Your task to perform on an android device: turn off smart reply in the gmail app Image 0: 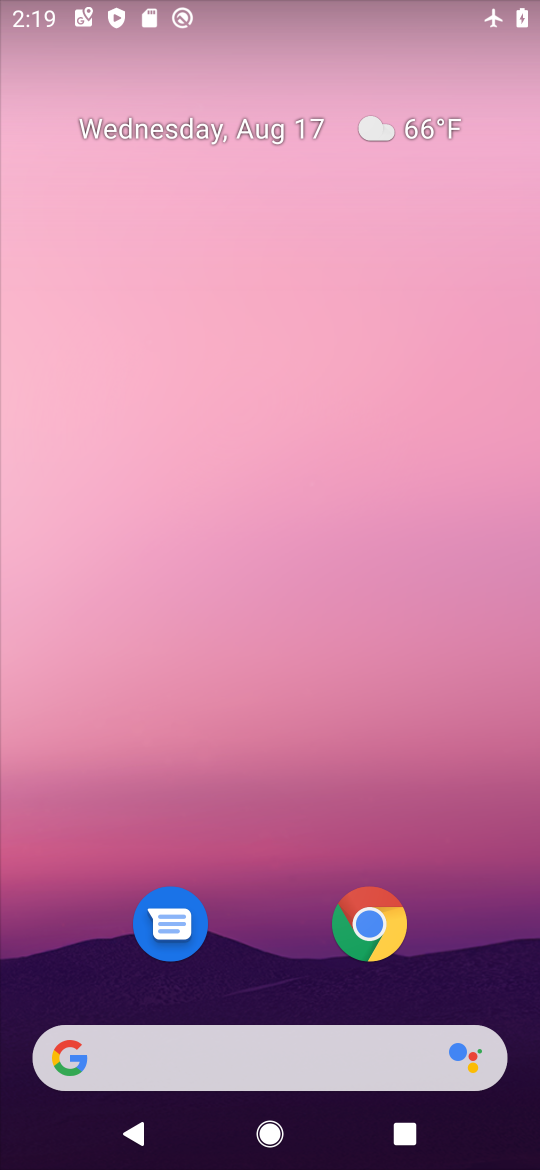
Step 0: drag from (200, 707) to (163, 188)
Your task to perform on an android device: turn off smart reply in the gmail app Image 1: 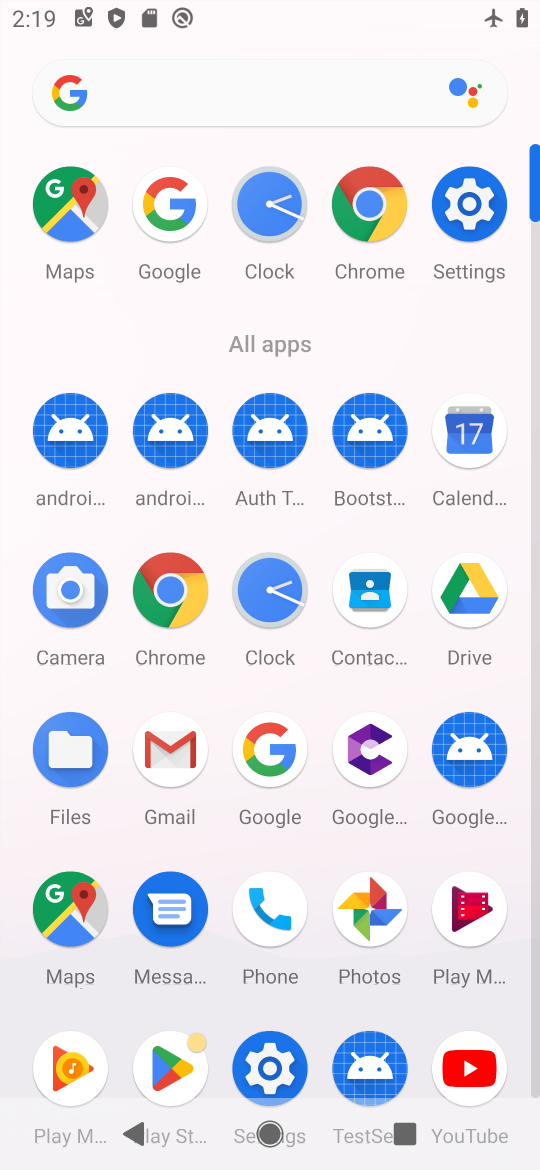
Step 1: click (171, 748)
Your task to perform on an android device: turn off smart reply in the gmail app Image 2: 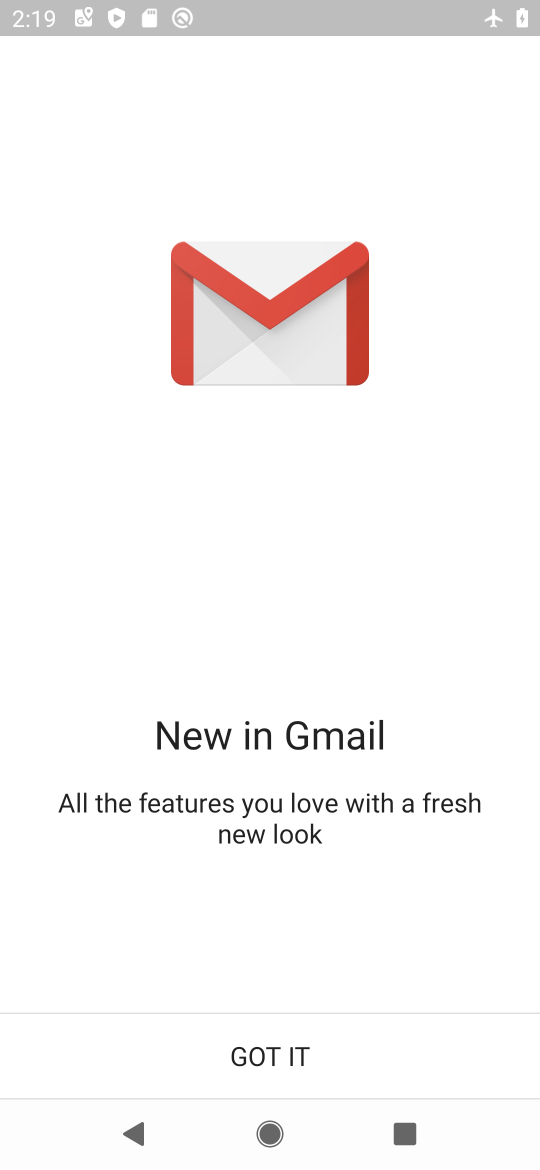
Step 2: click (265, 1052)
Your task to perform on an android device: turn off smart reply in the gmail app Image 3: 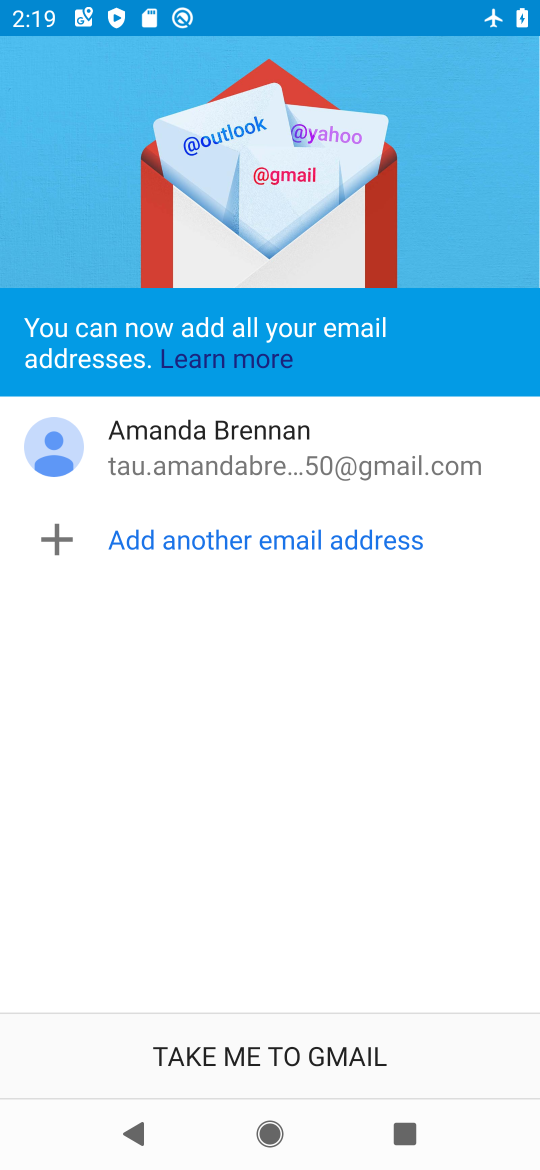
Step 3: click (268, 1059)
Your task to perform on an android device: turn off smart reply in the gmail app Image 4: 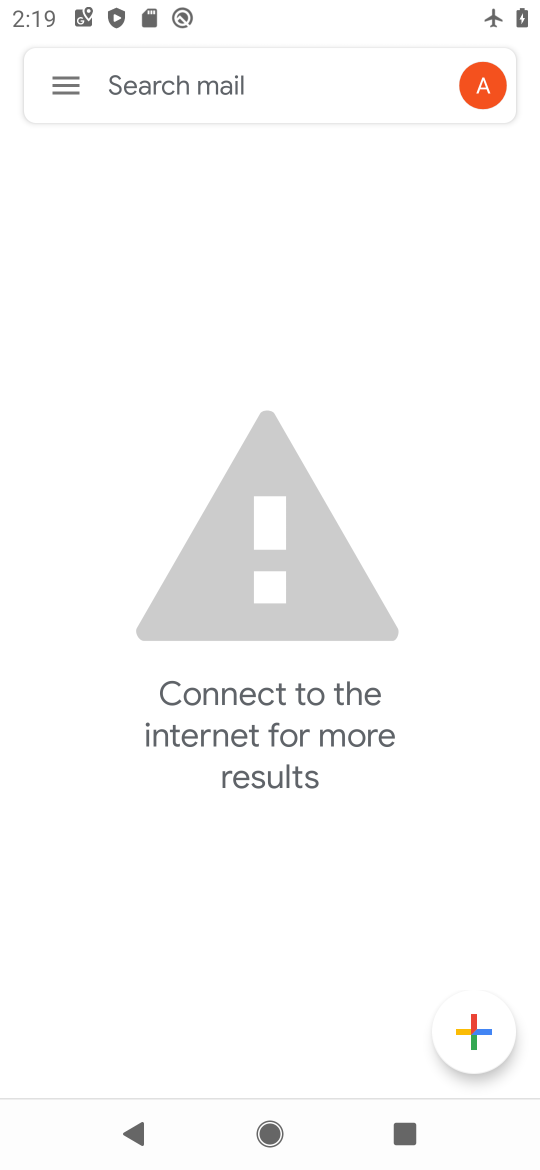
Step 4: click (66, 93)
Your task to perform on an android device: turn off smart reply in the gmail app Image 5: 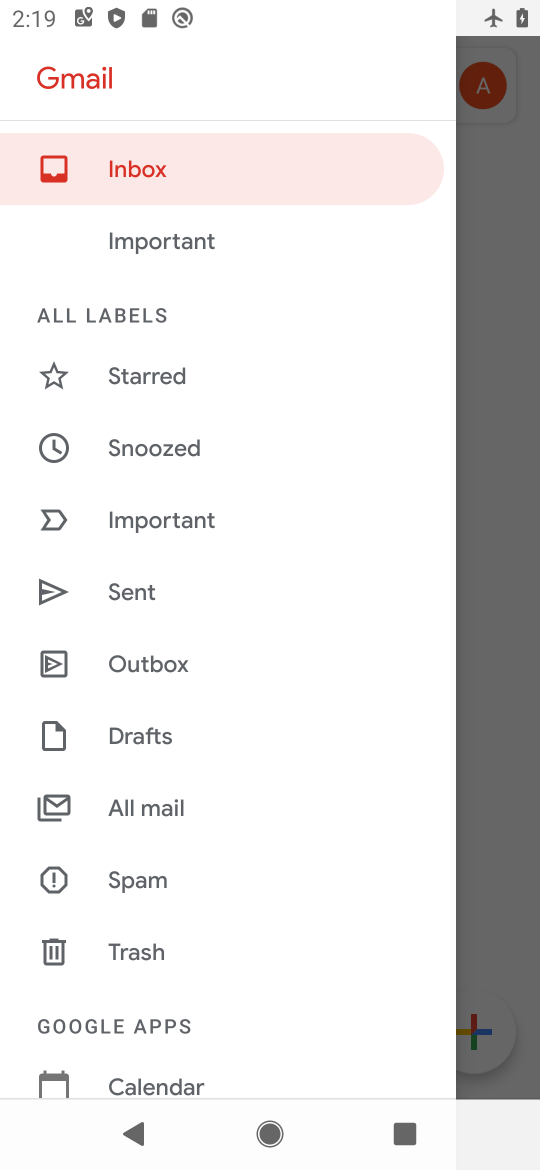
Step 5: drag from (226, 960) to (269, 797)
Your task to perform on an android device: turn off smart reply in the gmail app Image 6: 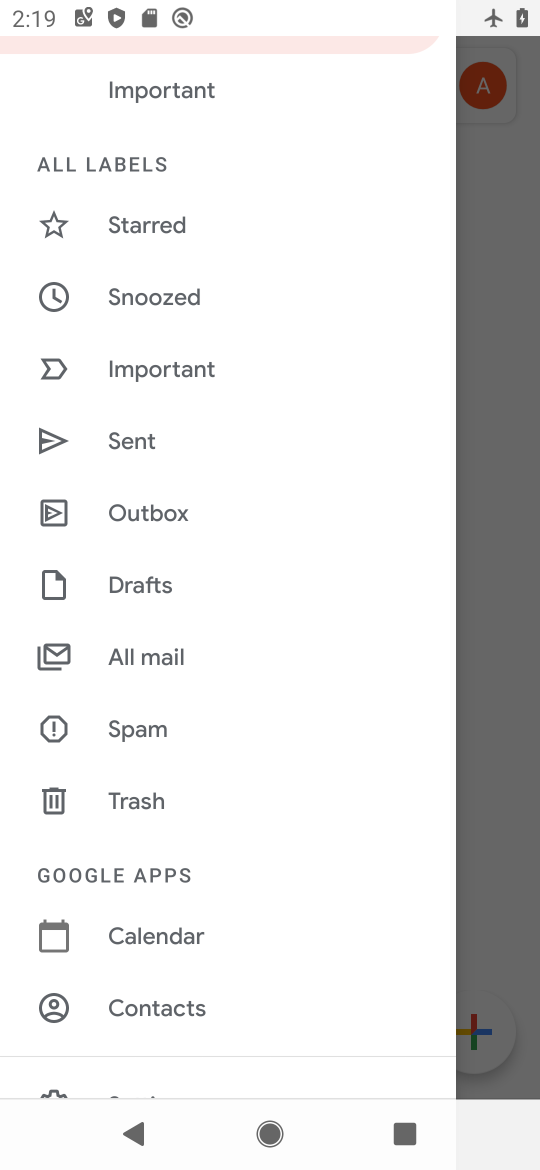
Step 6: drag from (255, 952) to (306, 754)
Your task to perform on an android device: turn off smart reply in the gmail app Image 7: 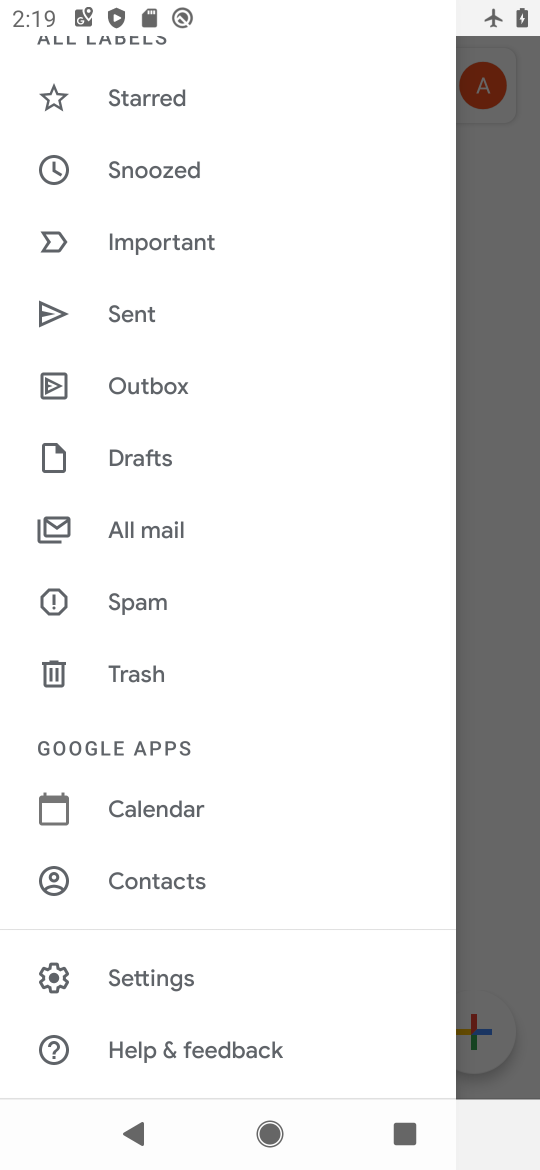
Step 7: click (182, 985)
Your task to perform on an android device: turn off smart reply in the gmail app Image 8: 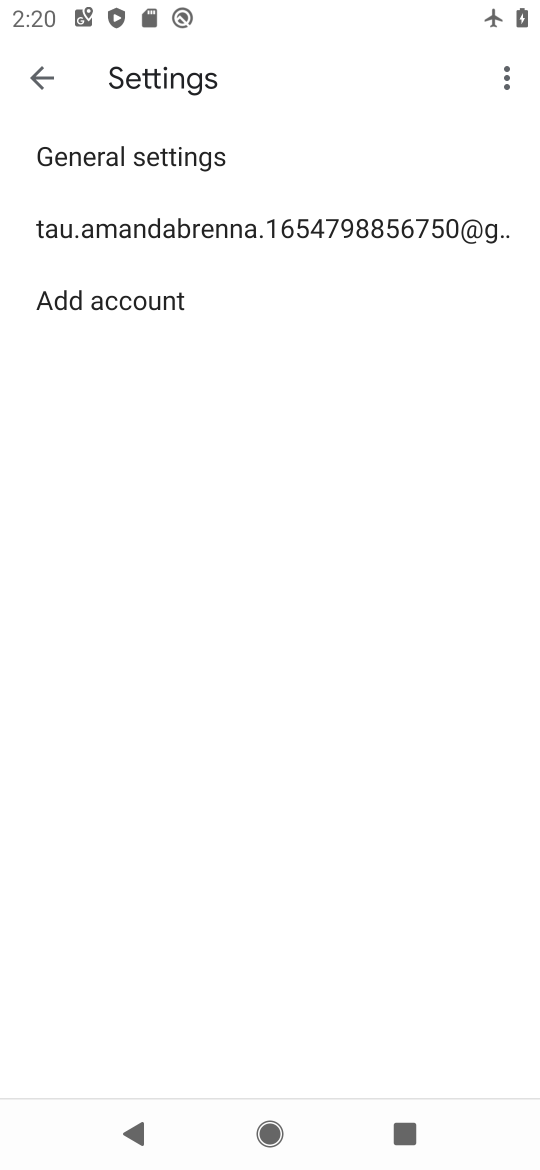
Step 8: click (324, 231)
Your task to perform on an android device: turn off smart reply in the gmail app Image 9: 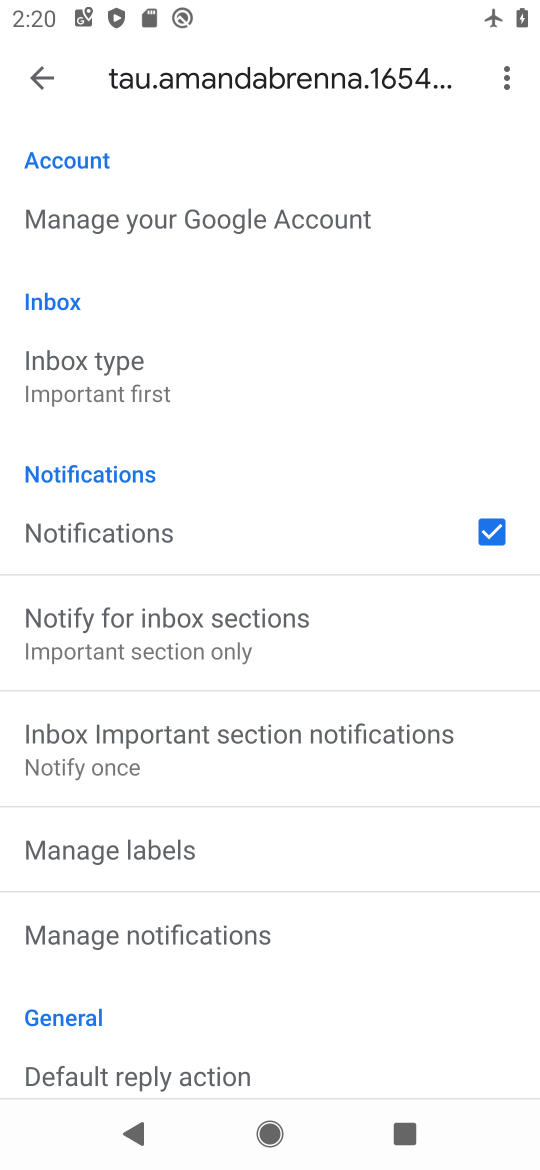
Step 9: drag from (249, 818) to (271, 634)
Your task to perform on an android device: turn off smart reply in the gmail app Image 10: 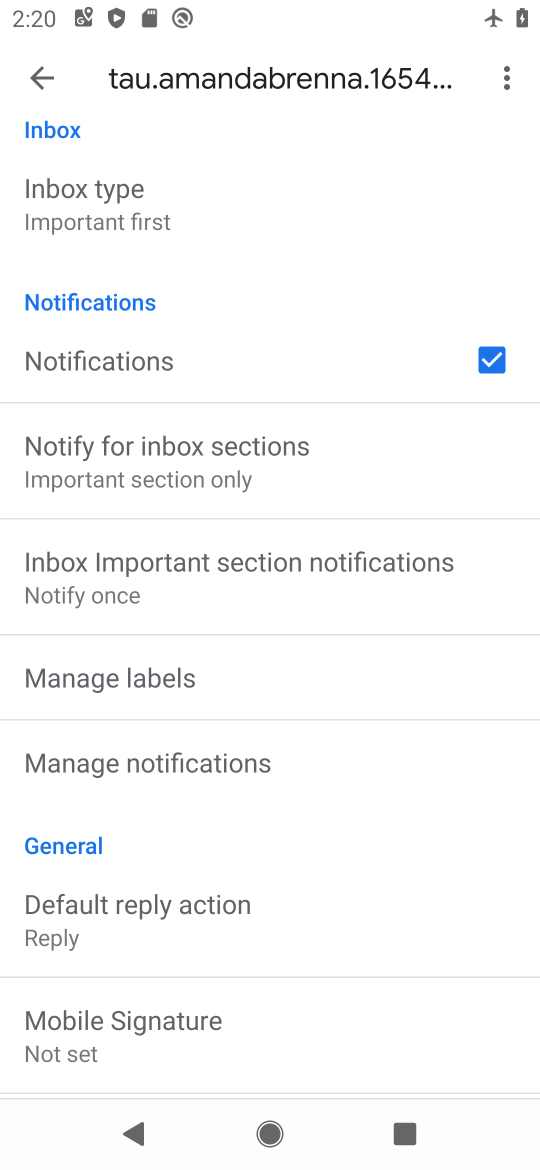
Step 10: drag from (214, 846) to (272, 704)
Your task to perform on an android device: turn off smart reply in the gmail app Image 11: 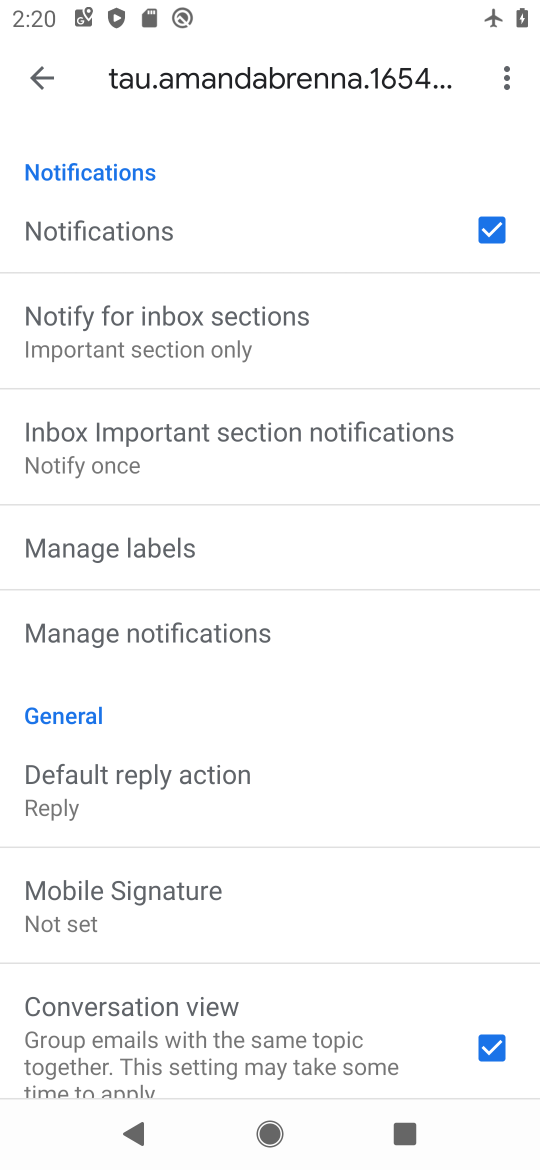
Step 11: drag from (199, 931) to (275, 773)
Your task to perform on an android device: turn off smart reply in the gmail app Image 12: 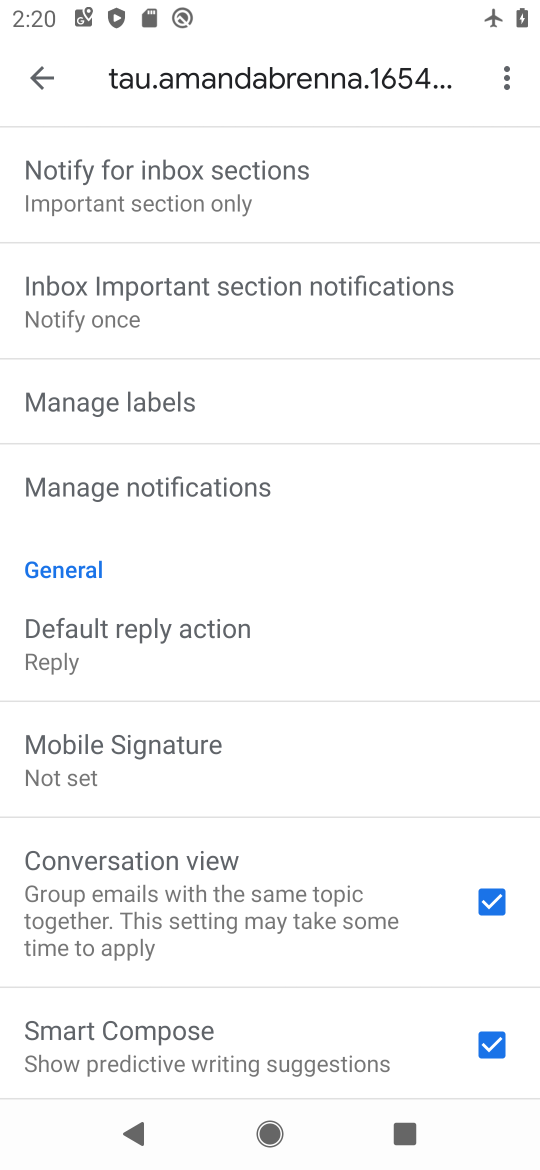
Step 12: drag from (204, 937) to (273, 774)
Your task to perform on an android device: turn off smart reply in the gmail app Image 13: 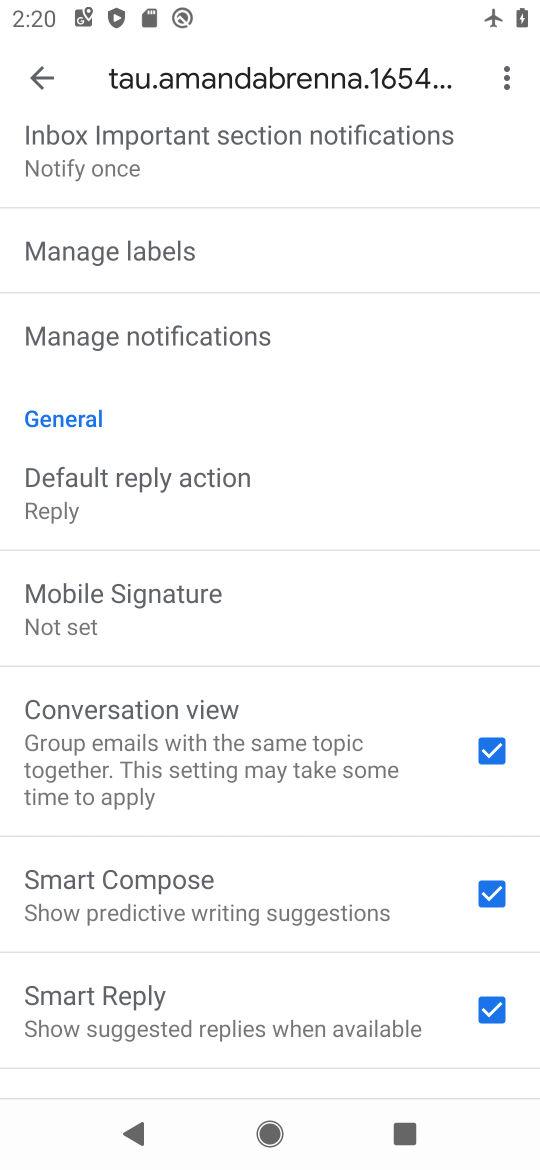
Step 13: drag from (204, 935) to (277, 787)
Your task to perform on an android device: turn off smart reply in the gmail app Image 14: 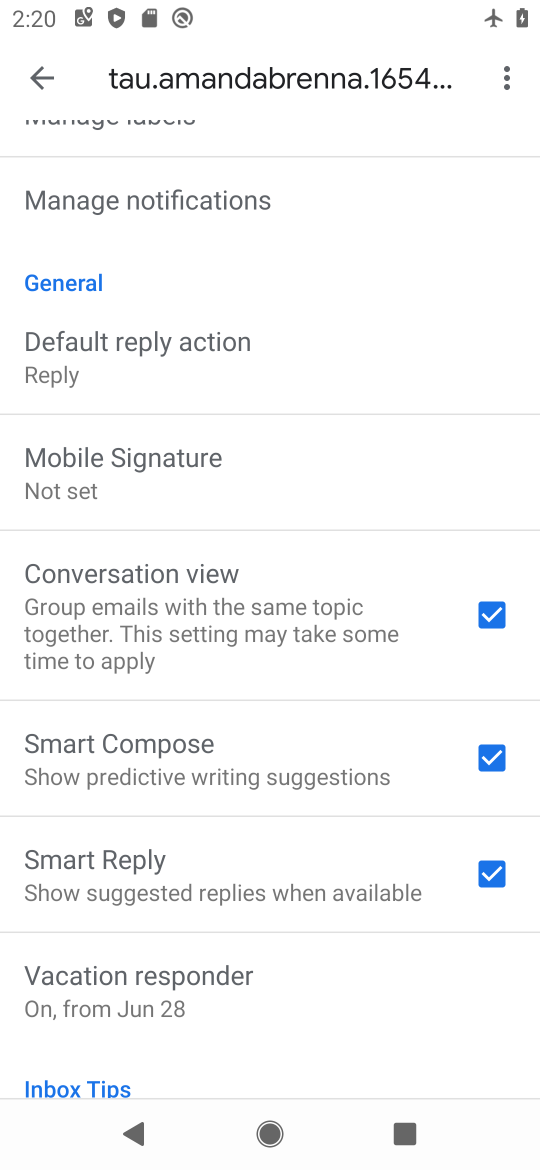
Step 14: drag from (255, 984) to (300, 844)
Your task to perform on an android device: turn off smart reply in the gmail app Image 15: 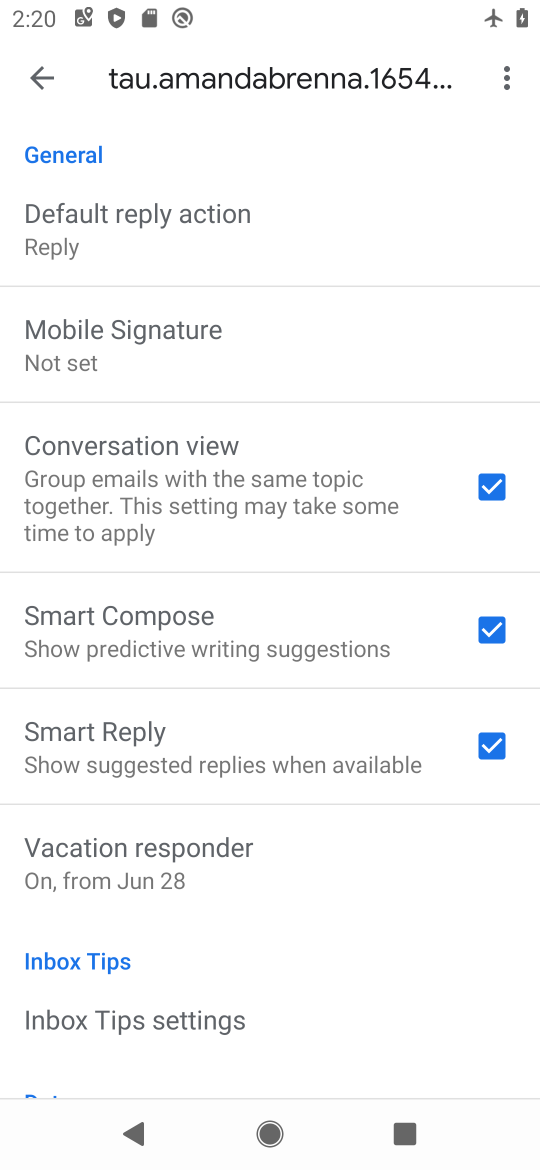
Step 15: click (498, 743)
Your task to perform on an android device: turn off smart reply in the gmail app Image 16: 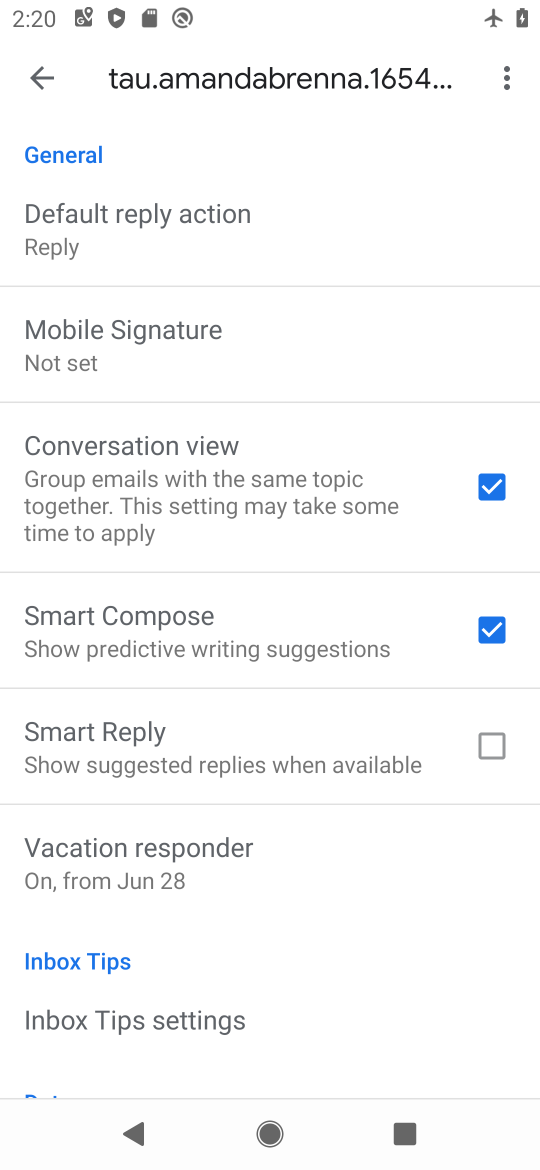
Step 16: task complete